Your task to perform on an android device: Go to notification settings Image 0: 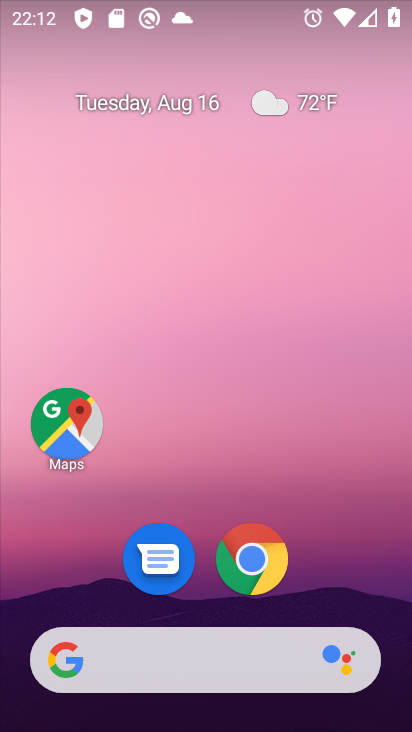
Step 0: drag from (199, 682) to (218, 112)
Your task to perform on an android device: Go to notification settings Image 1: 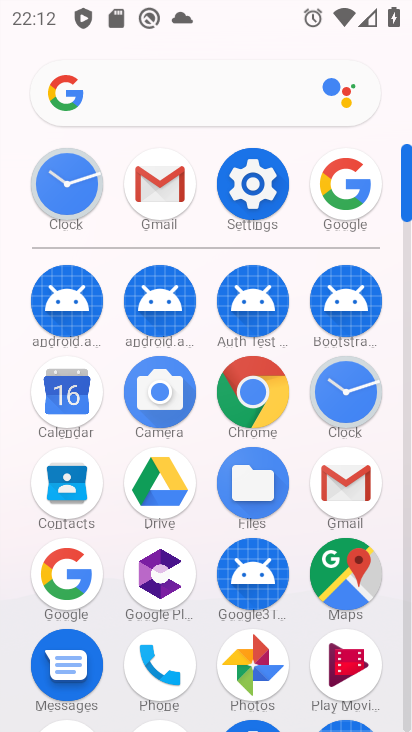
Step 1: click (254, 184)
Your task to perform on an android device: Go to notification settings Image 2: 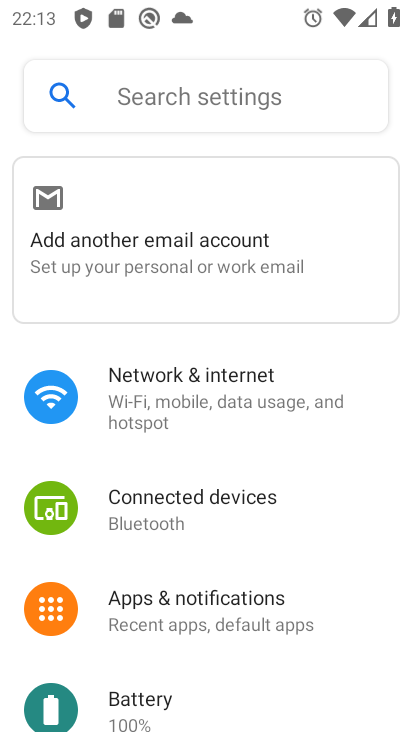
Step 2: click (173, 599)
Your task to perform on an android device: Go to notification settings Image 3: 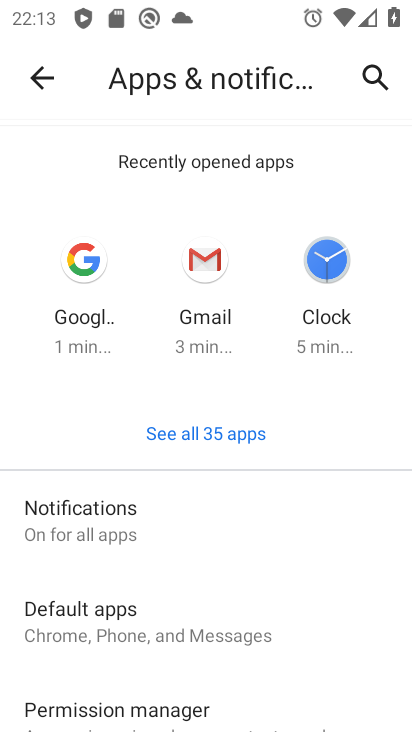
Step 3: click (93, 518)
Your task to perform on an android device: Go to notification settings Image 4: 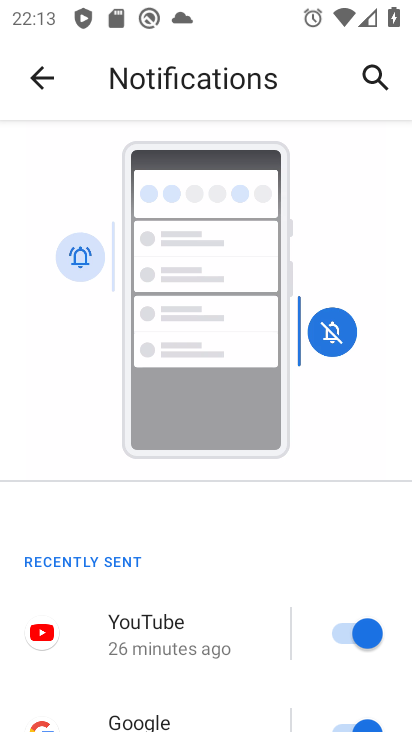
Step 4: task complete